Your task to perform on an android device: see tabs open on other devices in the chrome app Image 0: 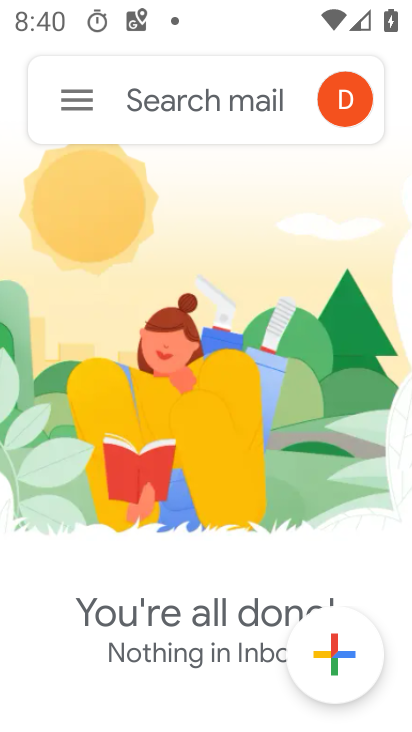
Step 0: press home button
Your task to perform on an android device: see tabs open on other devices in the chrome app Image 1: 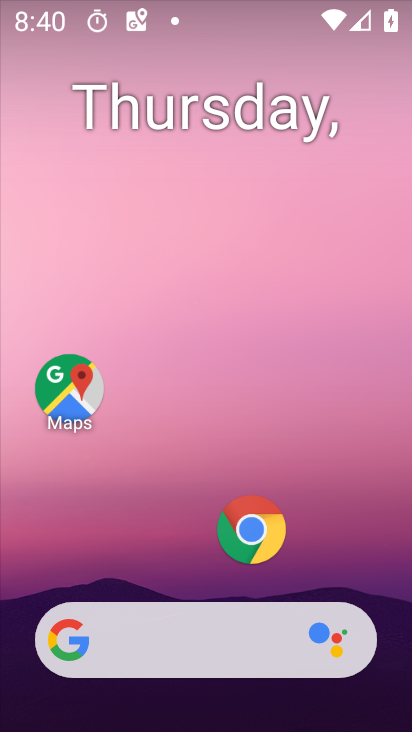
Step 1: click (245, 516)
Your task to perform on an android device: see tabs open on other devices in the chrome app Image 2: 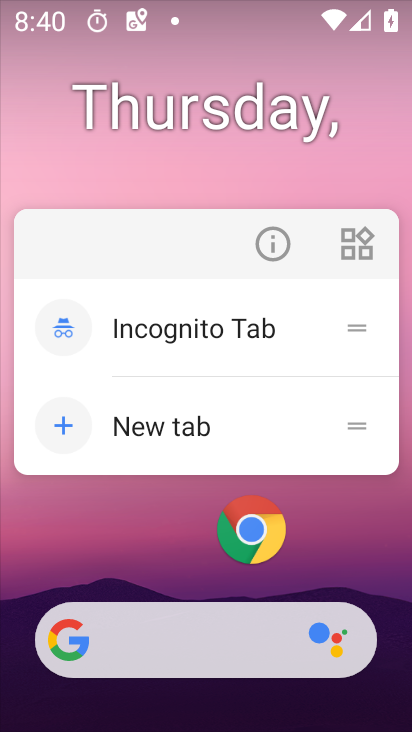
Step 2: click (245, 516)
Your task to perform on an android device: see tabs open on other devices in the chrome app Image 3: 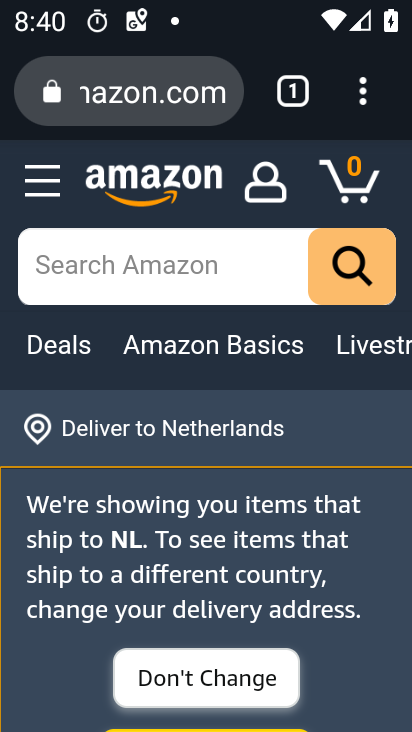
Step 3: click (357, 83)
Your task to perform on an android device: see tabs open on other devices in the chrome app Image 4: 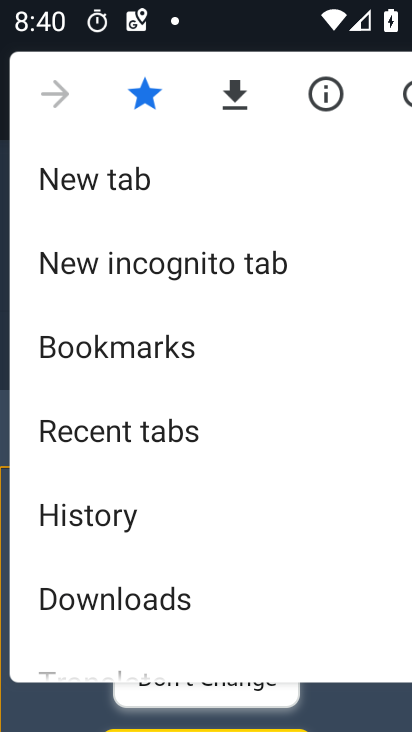
Step 4: click (218, 430)
Your task to perform on an android device: see tabs open on other devices in the chrome app Image 5: 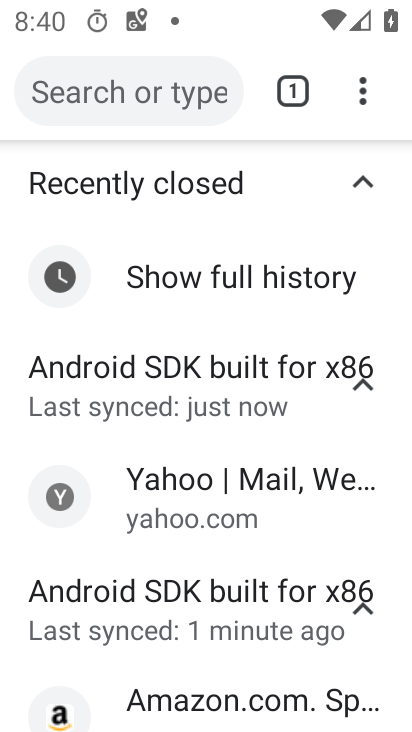
Step 5: task complete